Your task to perform on an android device: Open internet settings Image 0: 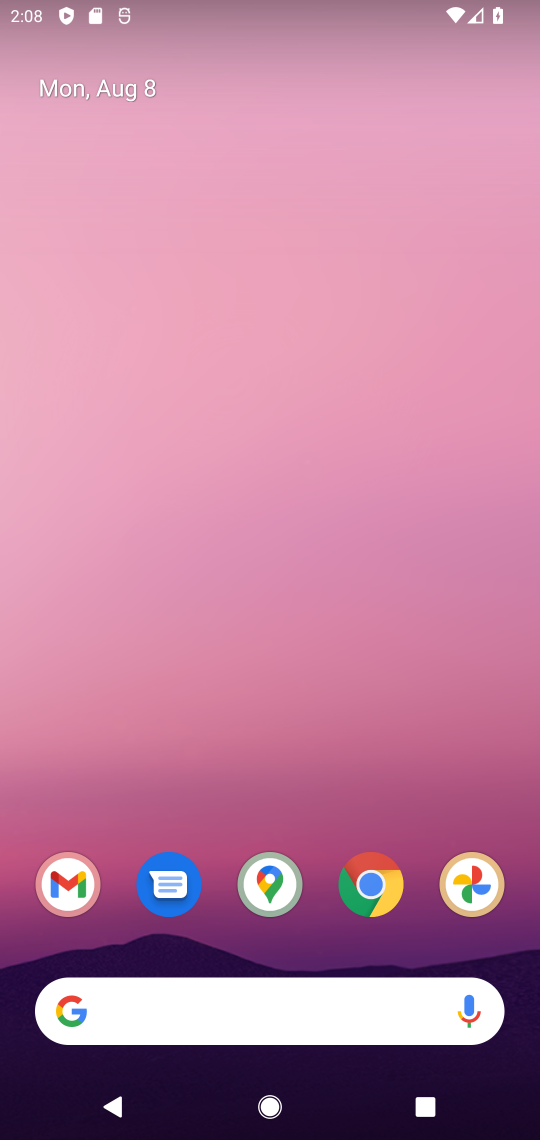
Step 0: press home button
Your task to perform on an android device: Open internet settings Image 1: 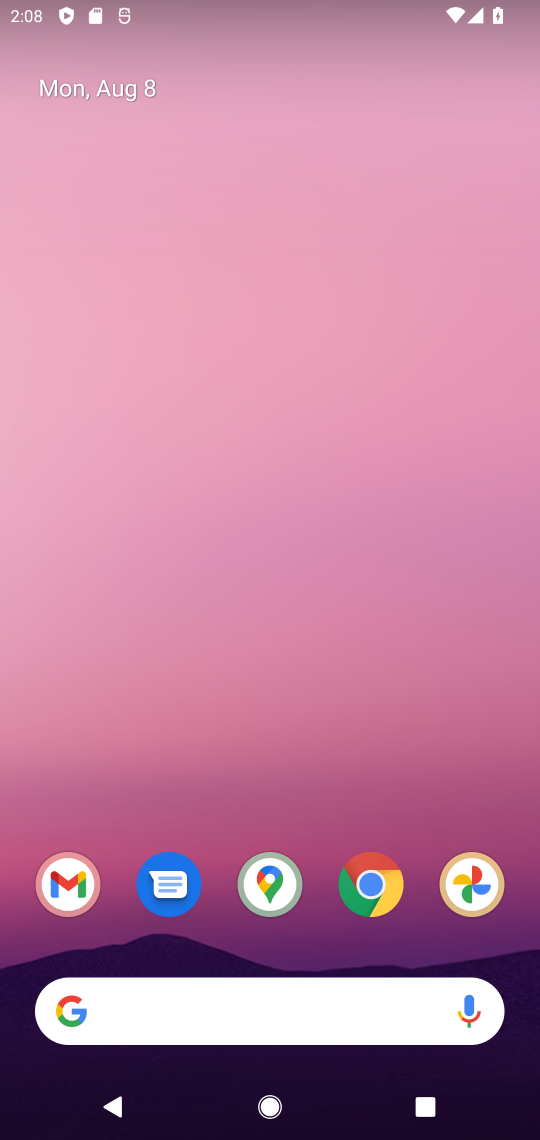
Step 1: drag from (294, 743) to (343, 89)
Your task to perform on an android device: Open internet settings Image 2: 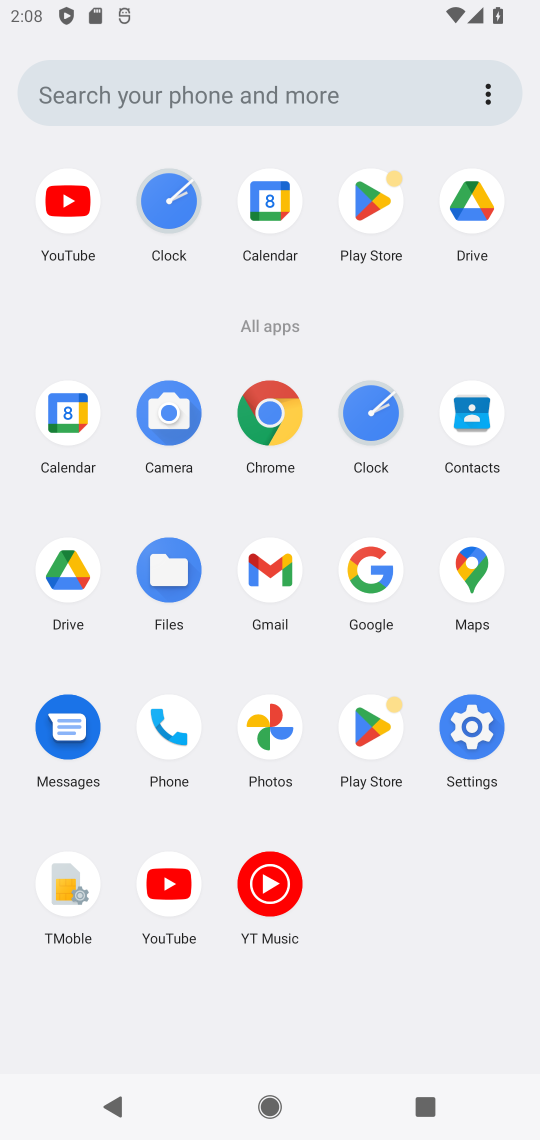
Step 2: click (475, 727)
Your task to perform on an android device: Open internet settings Image 3: 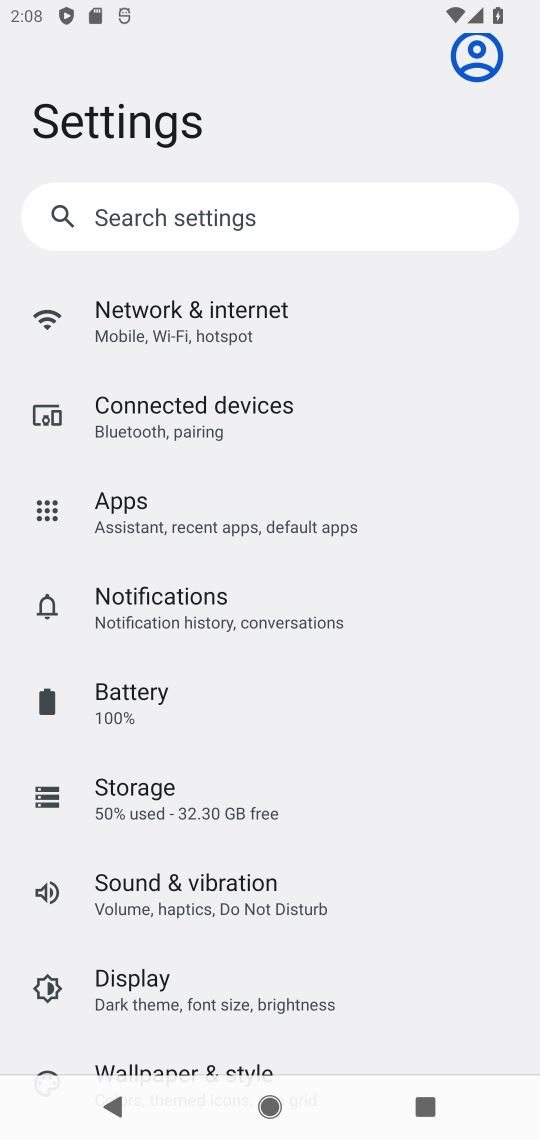
Step 3: click (193, 301)
Your task to perform on an android device: Open internet settings Image 4: 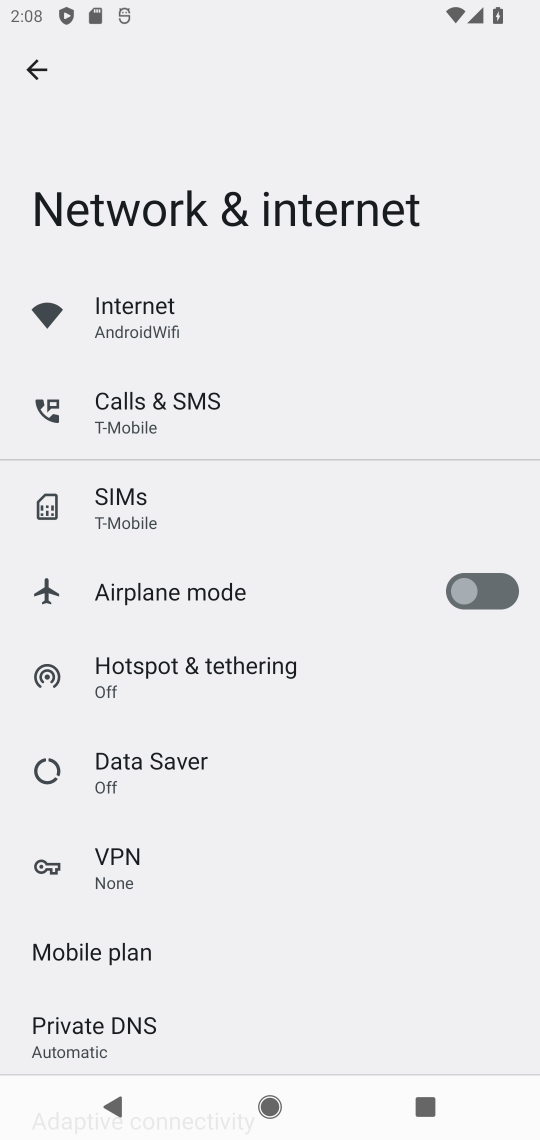
Step 4: click (131, 301)
Your task to perform on an android device: Open internet settings Image 5: 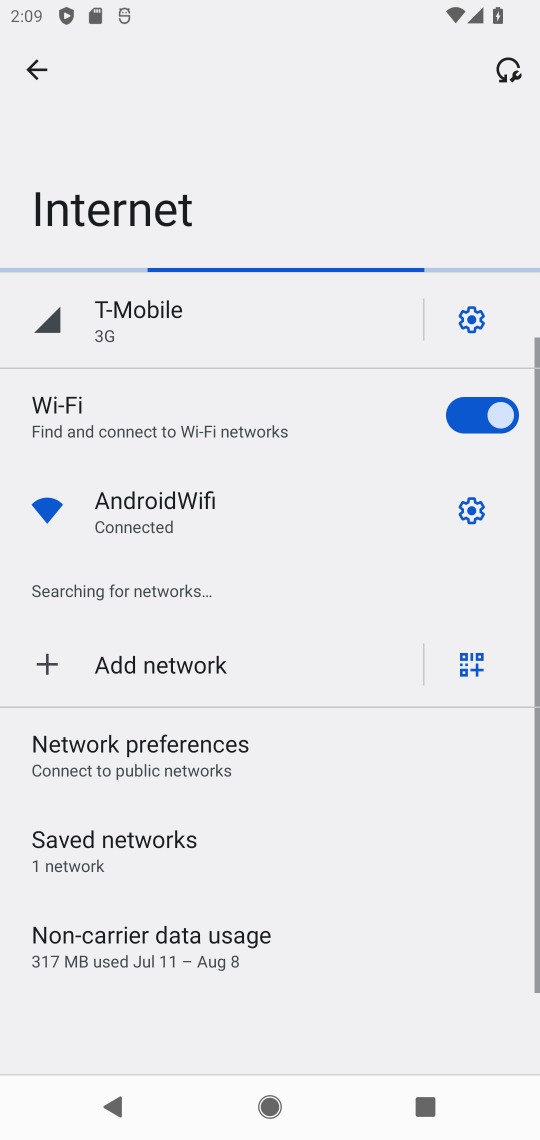
Step 5: task complete